Your task to perform on an android device: manage bookmarks in the chrome app Image 0: 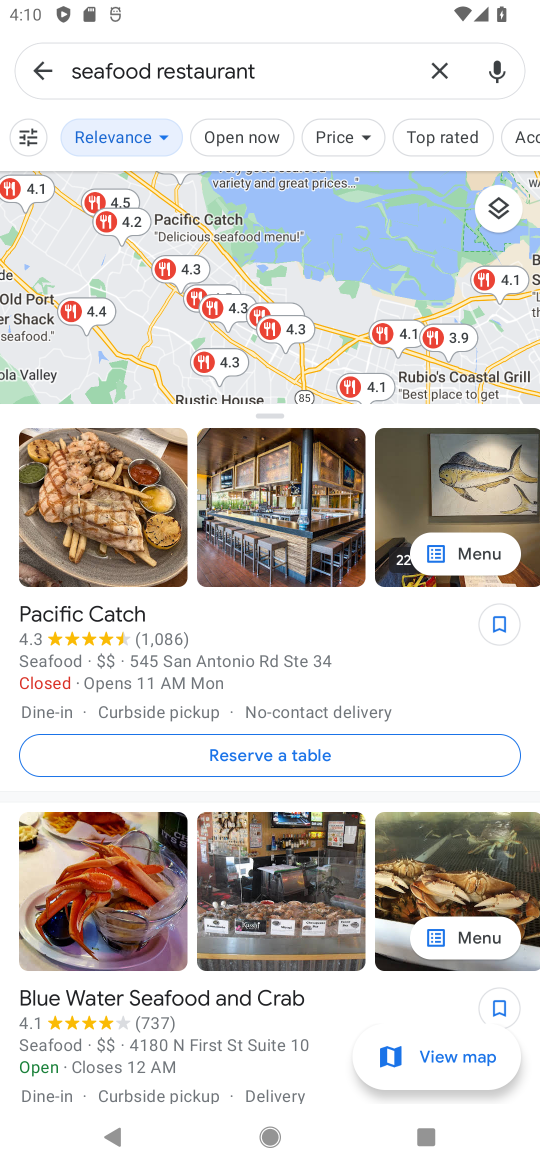
Step 0: press home button
Your task to perform on an android device: manage bookmarks in the chrome app Image 1: 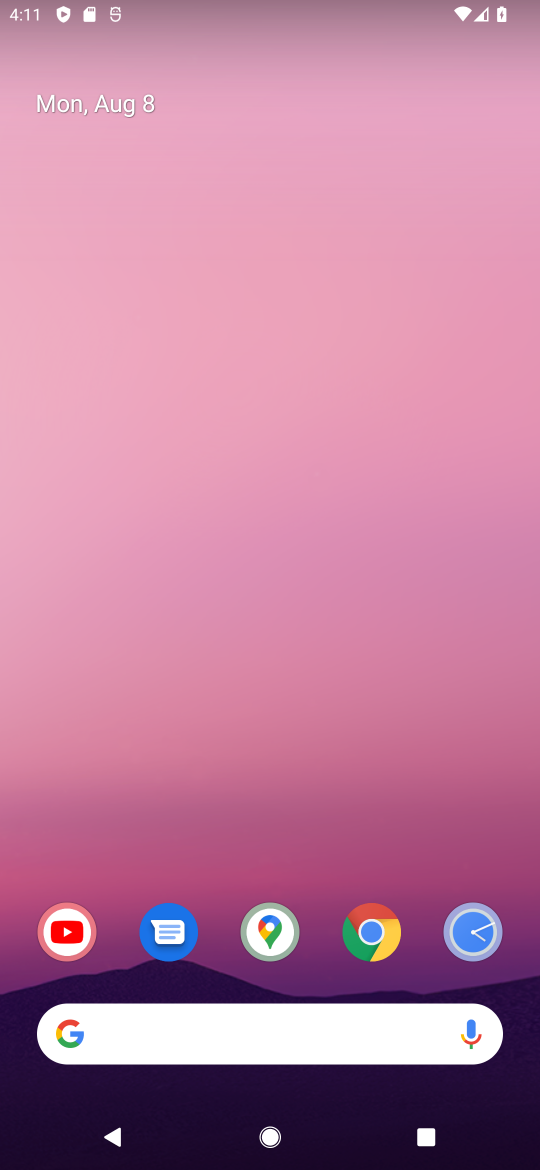
Step 1: click (346, 932)
Your task to perform on an android device: manage bookmarks in the chrome app Image 2: 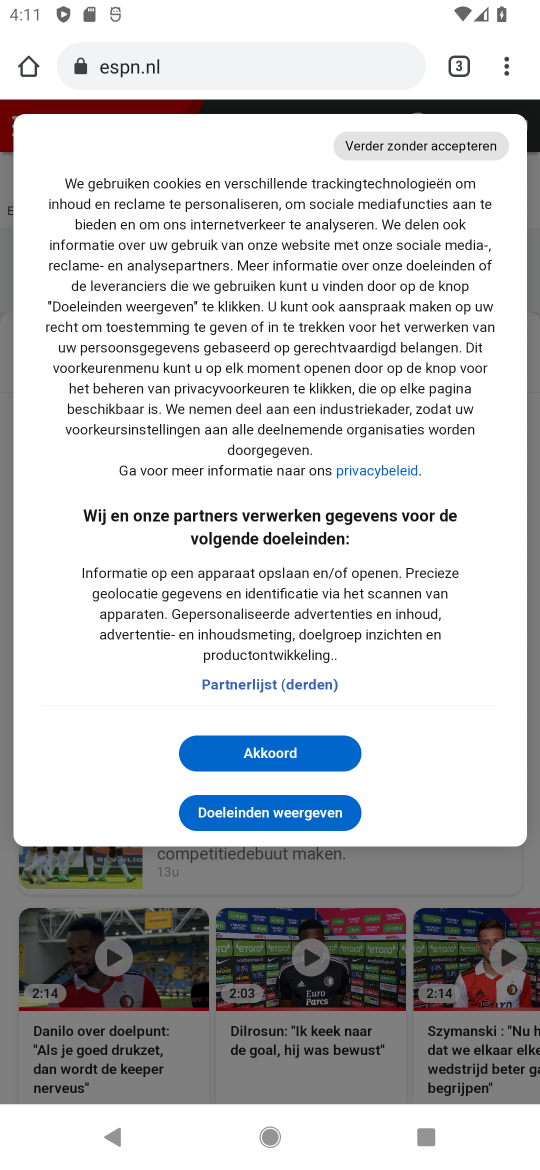
Step 2: click (503, 66)
Your task to perform on an android device: manage bookmarks in the chrome app Image 3: 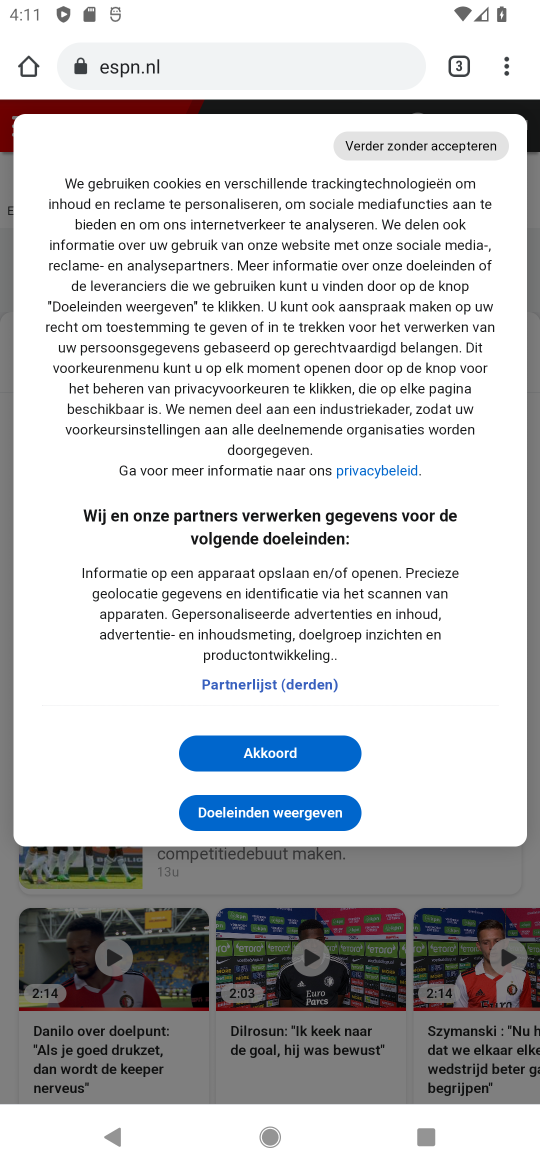
Step 3: click (503, 66)
Your task to perform on an android device: manage bookmarks in the chrome app Image 4: 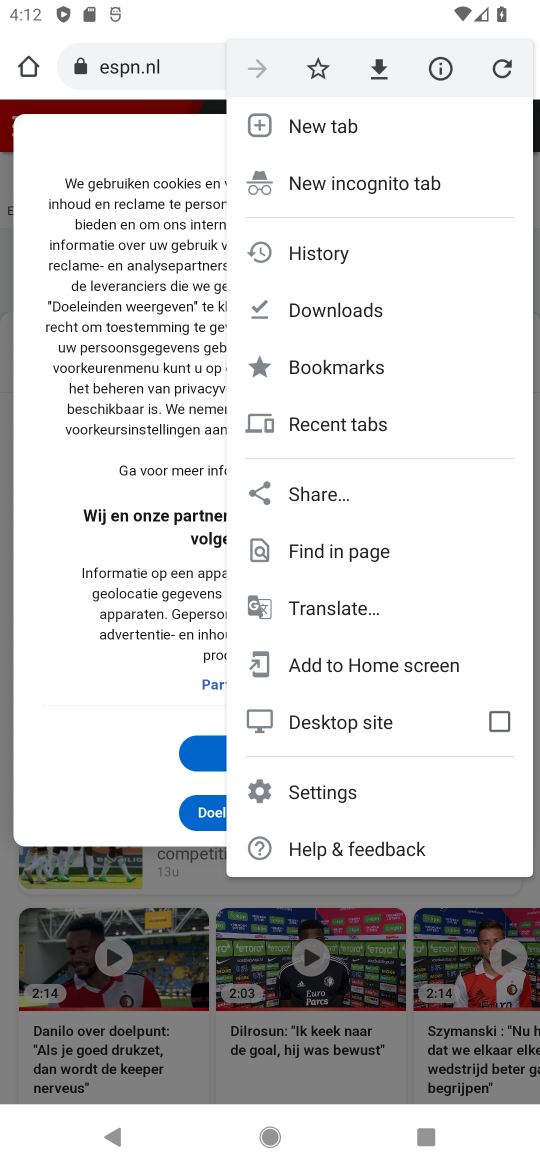
Step 4: click (396, 372)
Your task to perform on an android device: manage bookmarks in the chrome app Image 5: 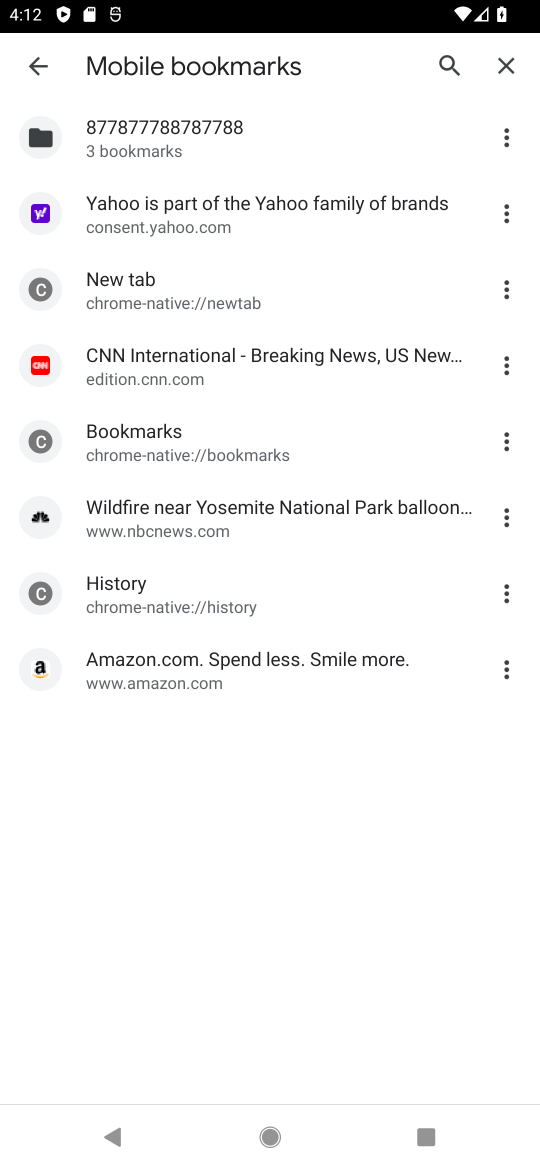
Step 5: click (516, 373)
Your task to perform on an android device: manage bookmarks in the chrome app Image 6: 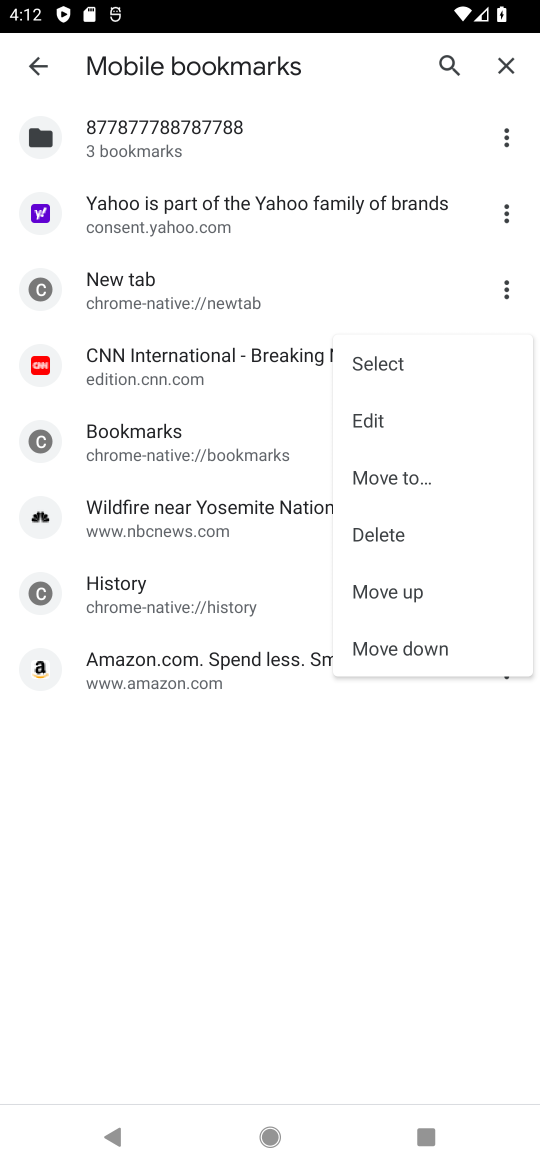
Step 6: click (405, 528)
Your task to perform on an android device: manage bookmarks in the chrome app Image 7: 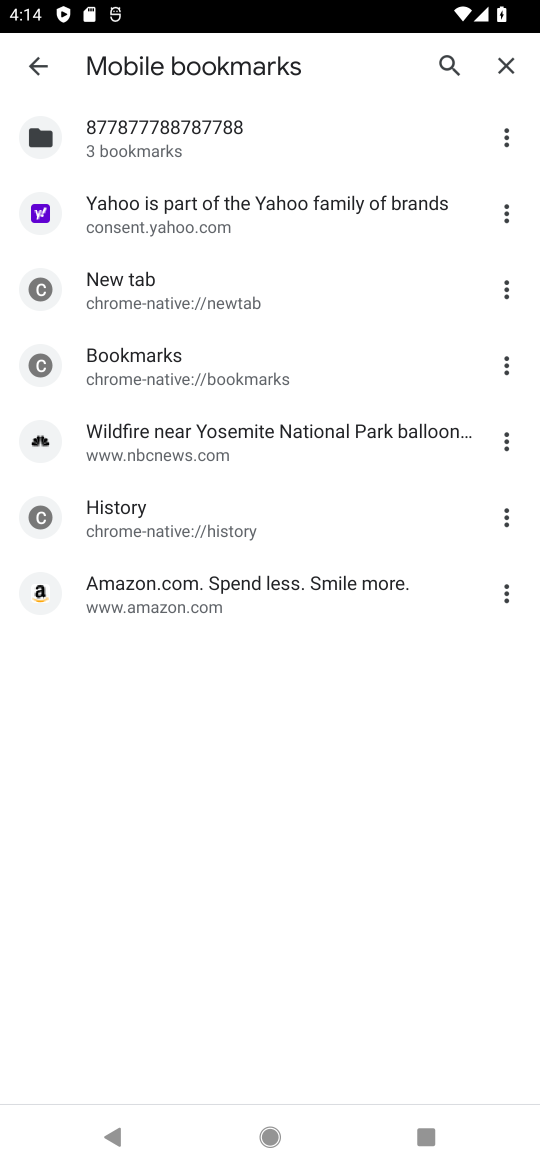
Step 7: click (507, 291)
Your task to perform on an android device: manage bookmarks in the chrome app Image 8: 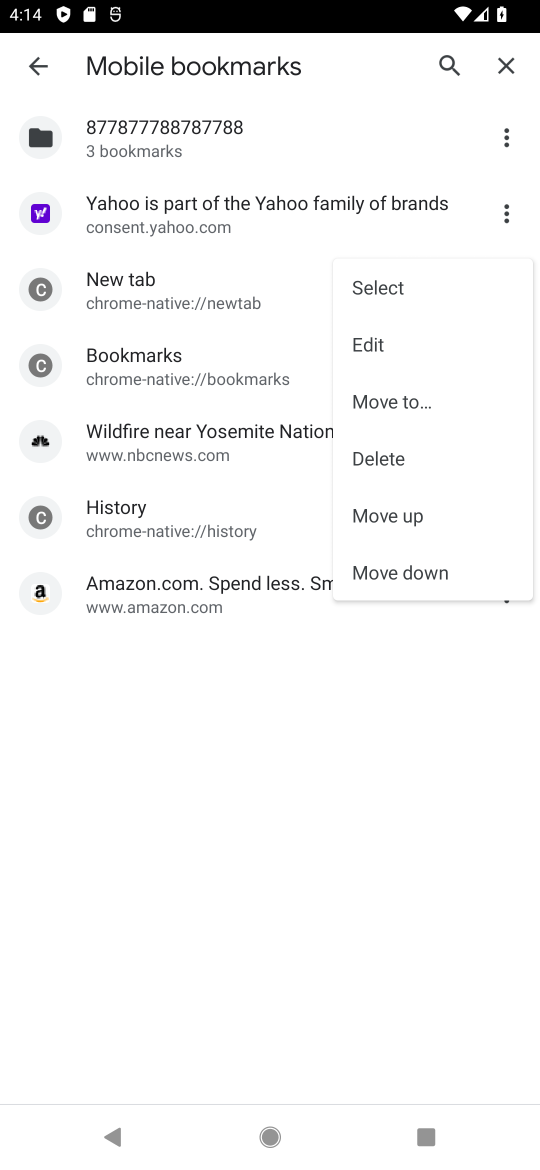
Step 8: click (425, 457)
Your task to perform on an android device: manage bookmarks in the chrome app Image 9: 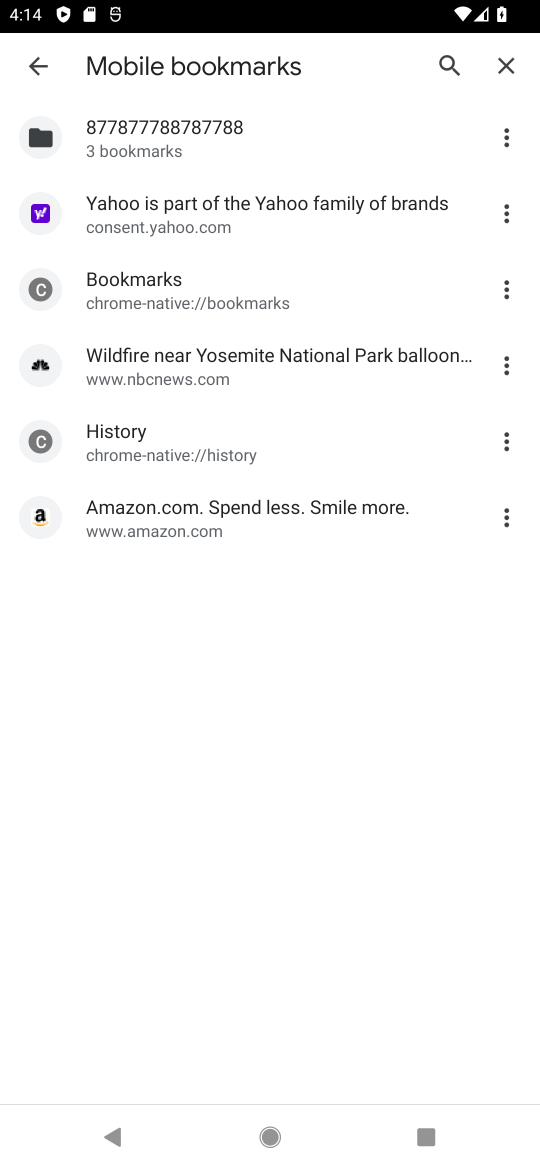
Step 9: task complete